Your task to perform on an android device: turn on notifications settings in the gmail app Image 0: 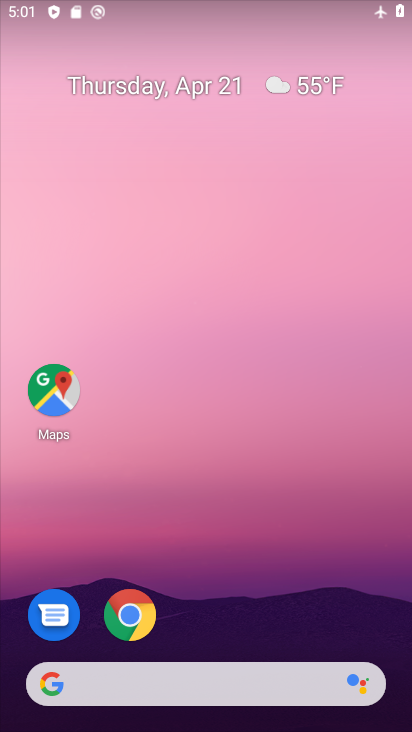
Step 0: drag from (273, 477) to (204, 38)
Your task to perform on an android device: turn on notifications settings in the gmail app Image 1: 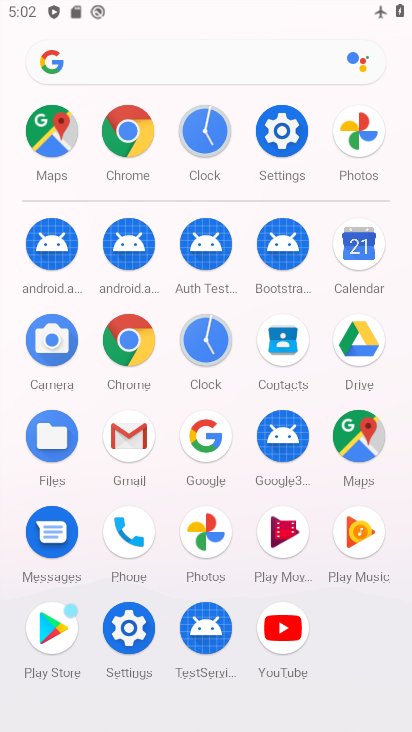
Step 1: drag from (13, 514) to (9, 240)
Your task to perform on an android device: turn on notifications settings in the gmail app Image 2: 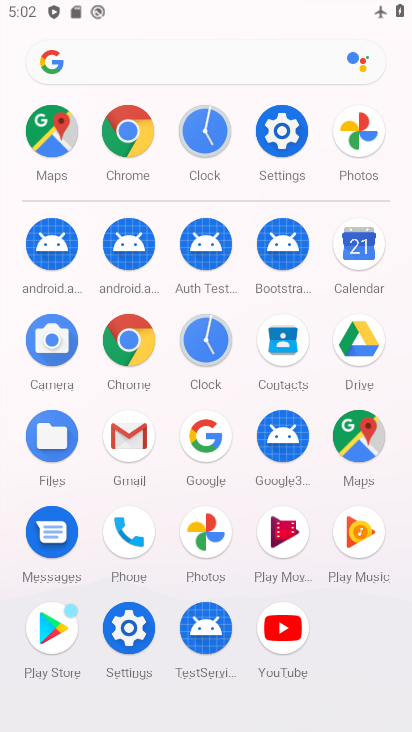
Step 2: drag from (7, 527) to (13, 267)
Your task to perform on an android device: turn on notifications settings in the gmail app Image 3: 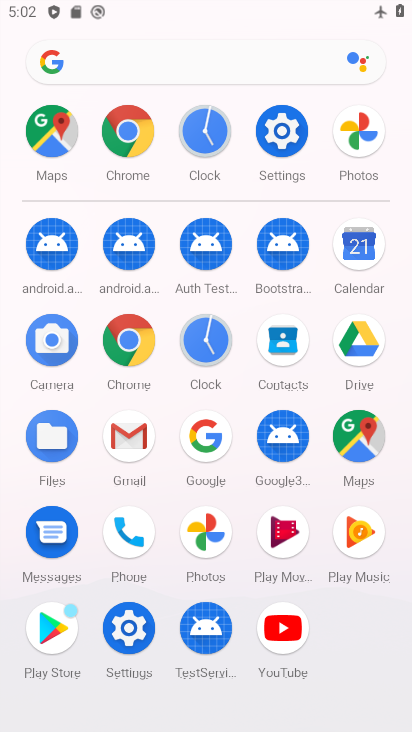
Step 3: click (129, 434)
Your task to perform on an android device: turn on notifications settings in the gmail app Image 4: 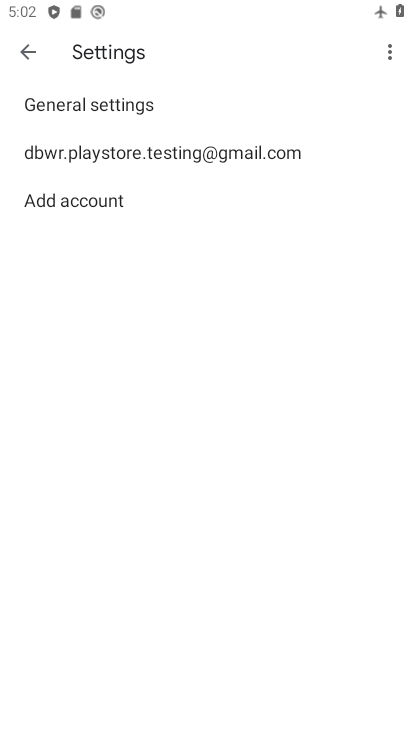
Step 4: click (188, 151)
Your task to perform on an android device: turn on notifications settings in the gmail app Image 5: 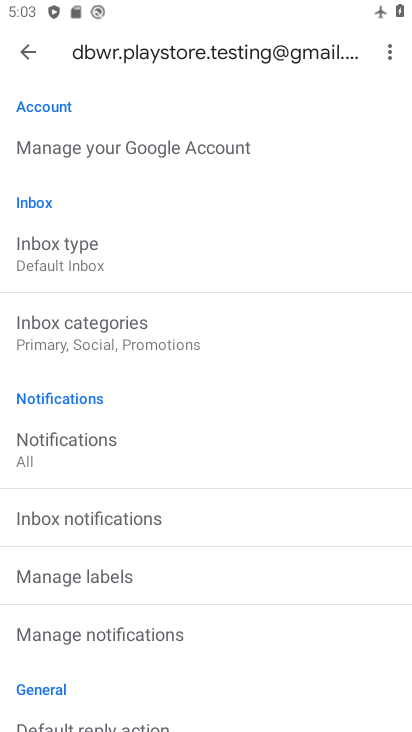
Step 5: drag from (281, 483) to (269, 166)
Your task to perform on an android device: turn on notifications settings in the gmail app Image 6: 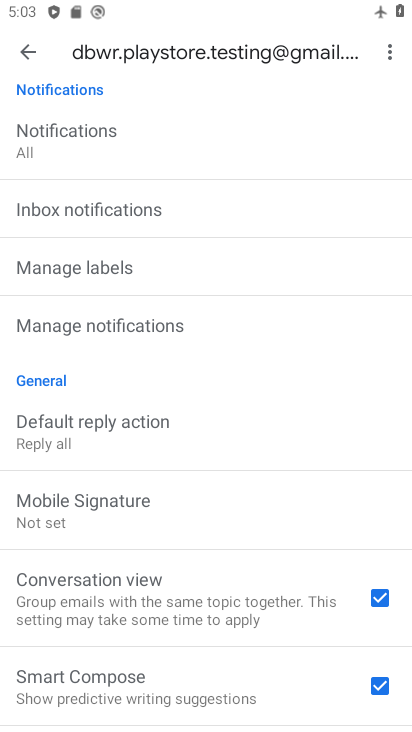
Step 6: click (138, 324)
Your task to perform on an android device: turn on notifications settings in the gmail app Image 7: 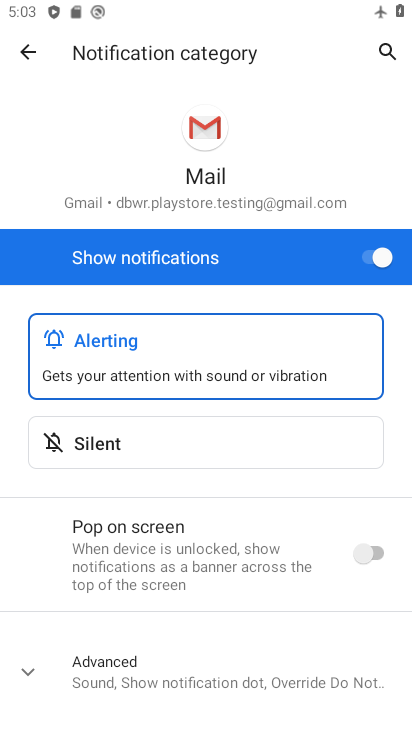
Step 7: task complete